Your task to perform on an android device: Open Chrome and go to the settings page Image 0: 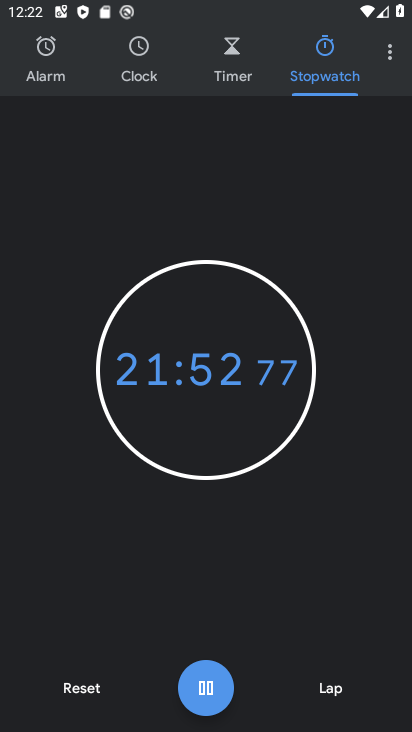
Step 0: press home button
Your task to perform on an android device: Open Chrome and go to the settings page Image 1: 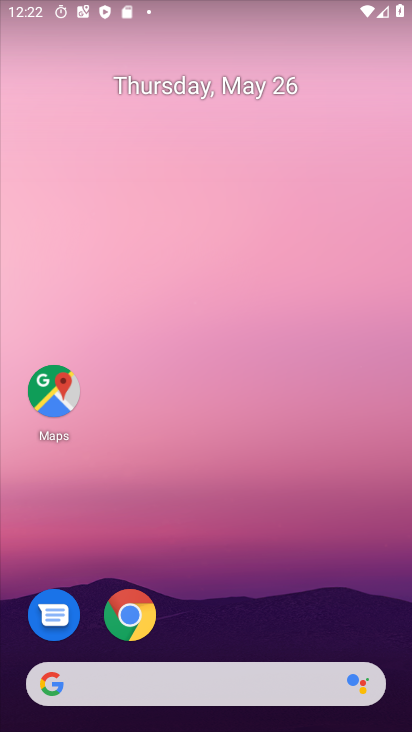
Step 1: drag from (249, 628) to (201, 239)
Your task to perform on an android device: Open Chrome and go to the settings page Image 2: 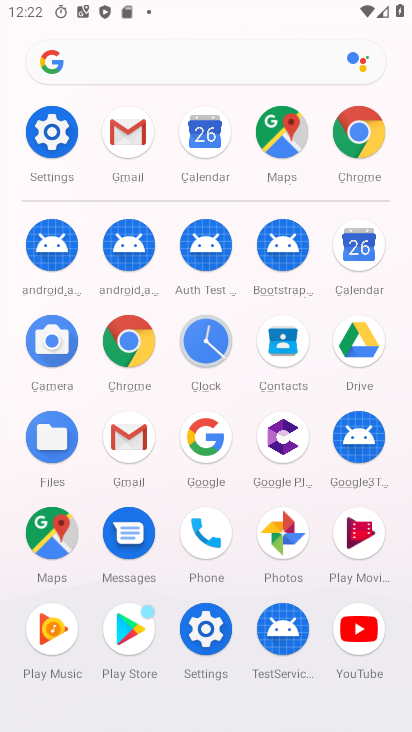
Step 2: click (361, 150)
Your task to perform on an android device: Open Chrome and go to the settings page Image 3: 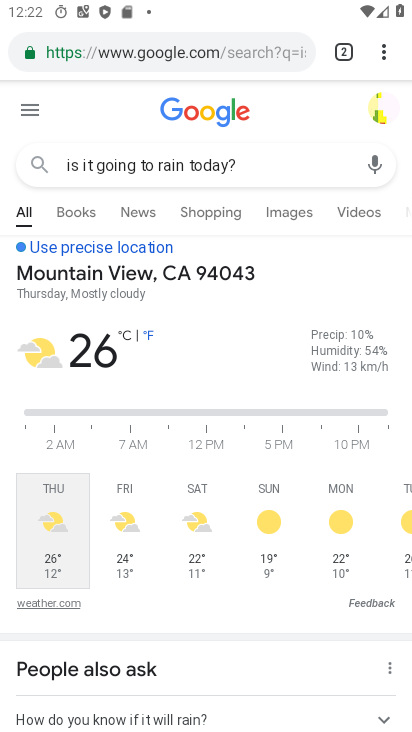
Step 3: click (392, 40)
Your task to perform on an android device: Open Chrome and go to the settings page Image 4: 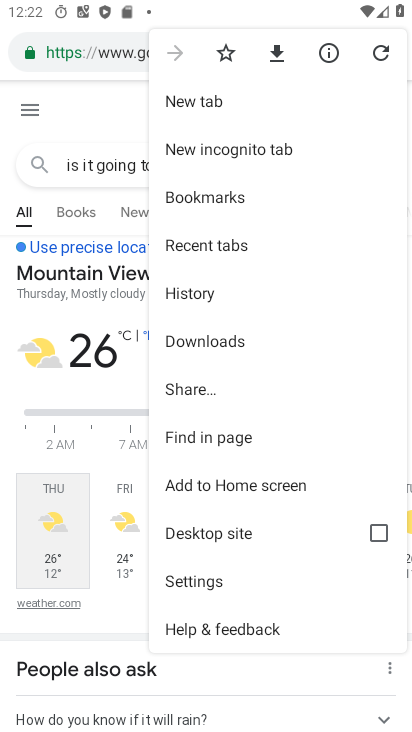
Step 4: click (268, 580)
Your task to perform on an android device: Open Chrome and go to the settings page Image 5: 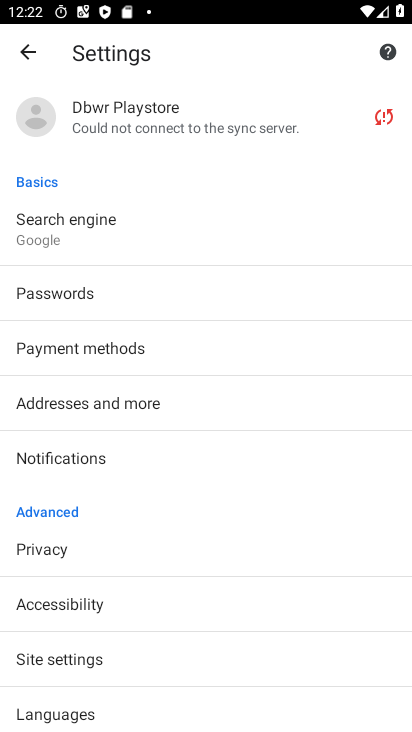
Step 5: task complete